Your task to perform on an android device: change the clock display to show seconds Image 0: 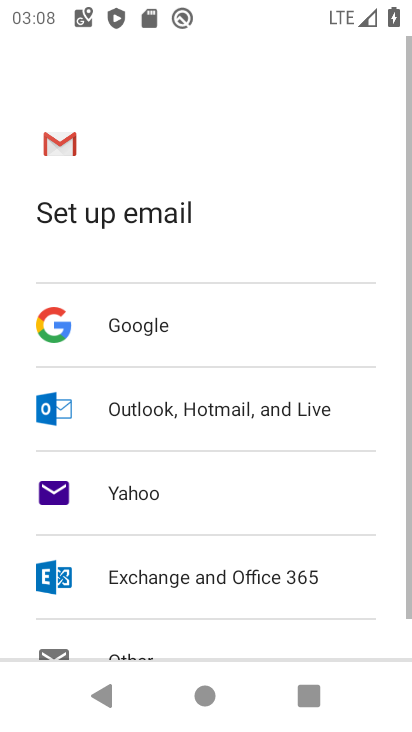
Step 0: press home button
Your task to perform on an android device: change the clock display to show seconds Image 1: 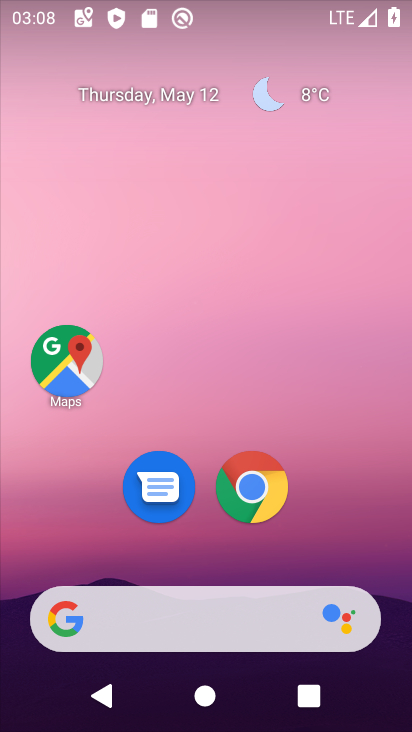
Step 1: drag from (393, 634) to (338, 102)
Your task to perform on an android device: change the clock display to show seconds Image 2: 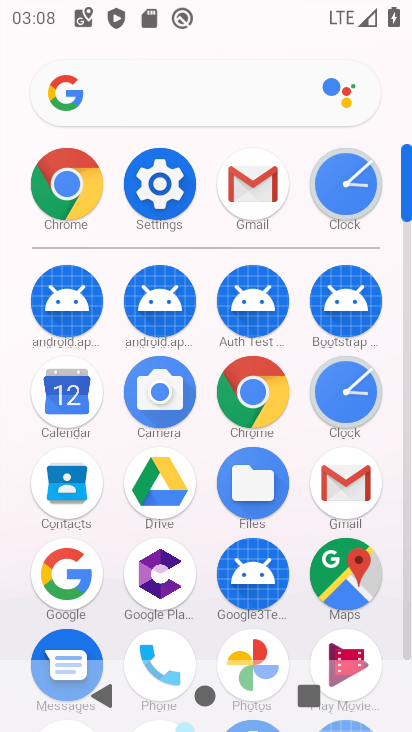
Step 2: click (354, 411)
Your task to perform on an android device: change the clock display to show seconds Image 3: 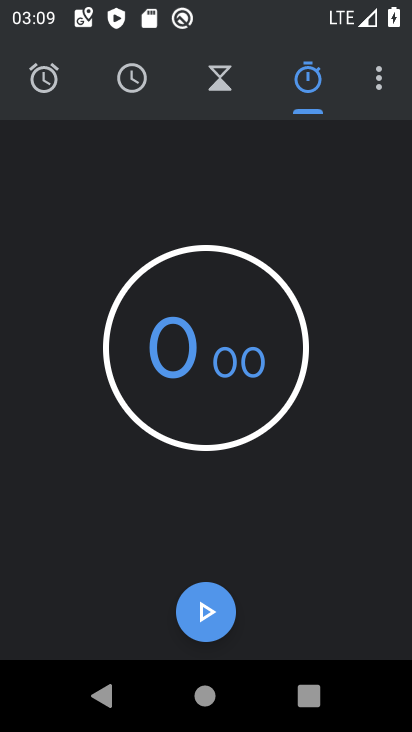
Step 3: click (382, 67)
Your task to perform on an android device: change the clock display to show seconds Image 4: 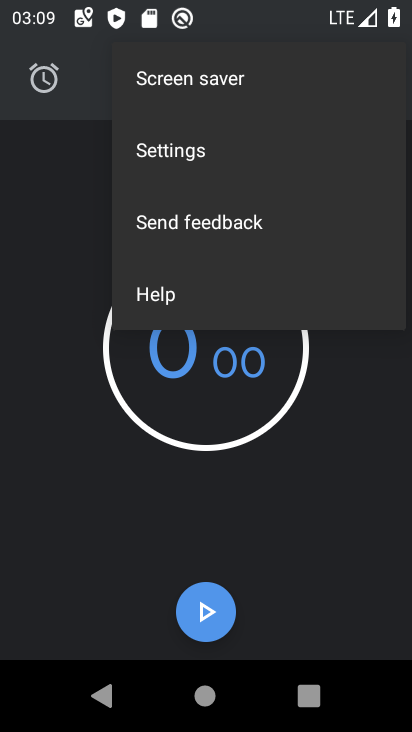
Step 4: click (209, 147)
Your task to perform on an android device: change the clock display to show seconds Image 5: 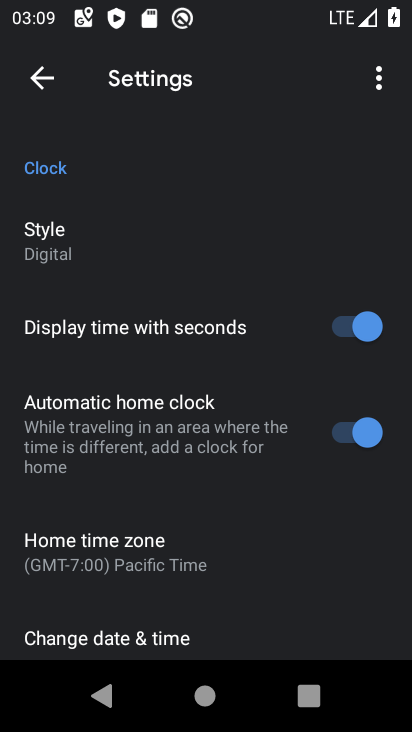
Step 5: task complete